Your task to perform on an android device: Is it going to rain this weekend? Image 0: 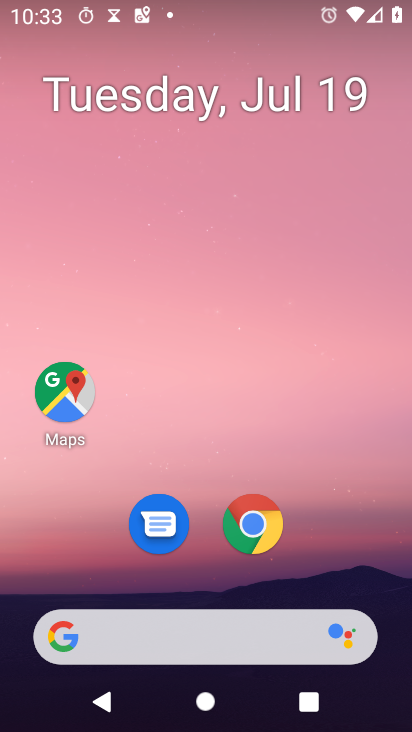
Step 0: click (167, 628)
Your task to perform on an android device: Is it going to rain this weekend? Image 1: 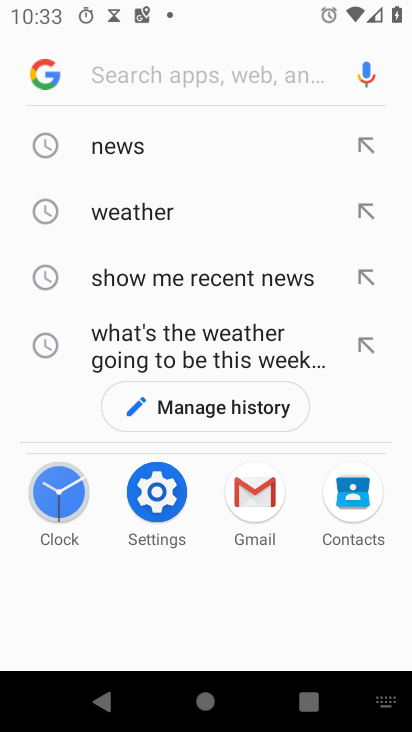
Step 1: click (140, 212)
Your task to perform on an android device: Is it going to rain this weekend? Image 2: 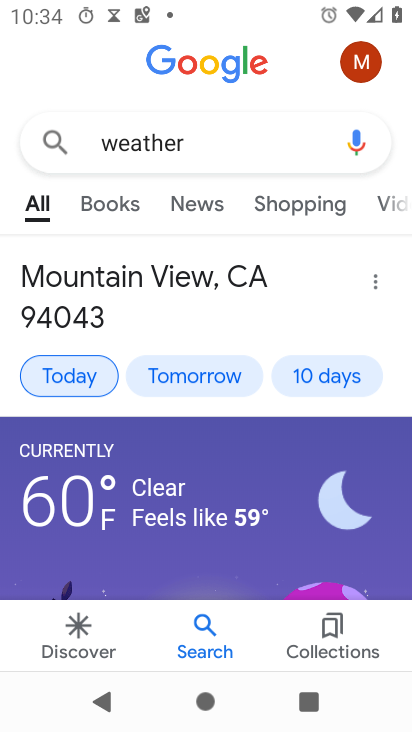
Step 2: click (326, 379)
Your task to perform on an android device: Is it going to rain this weekend? Image 3: 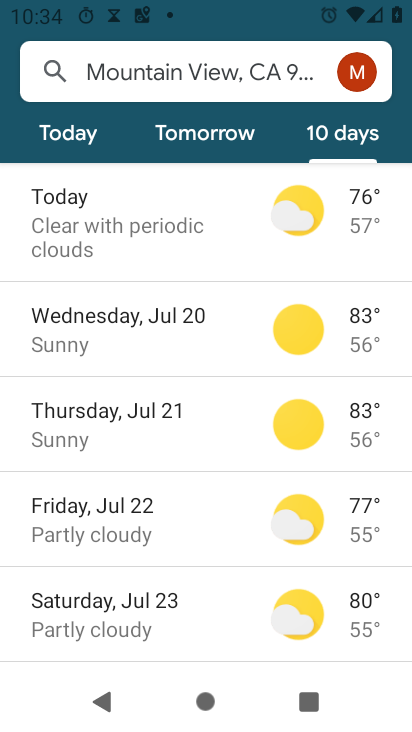
Step 3: click (109, 600)
Your task to perform on an android device: Is it going to rain this weekend? Image 4: 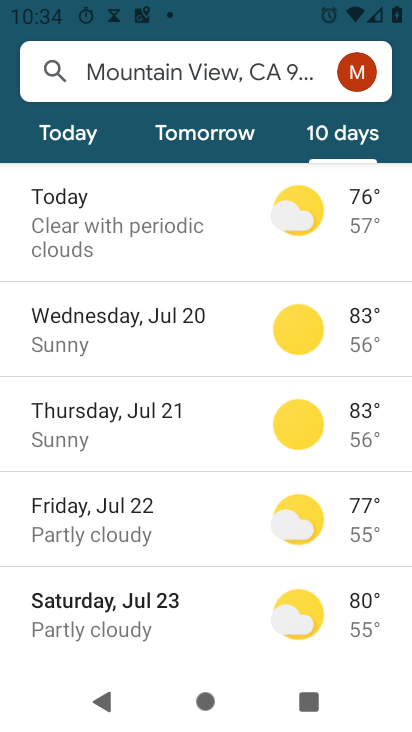
Step 4: task complete